Your task to perform on an android device: Go to CNN.com Image 0: 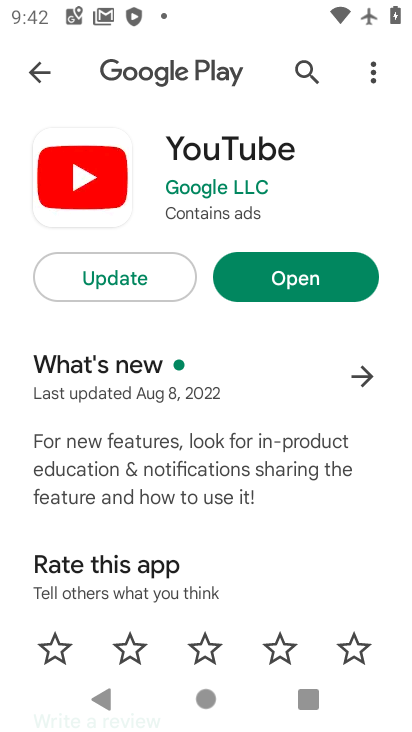
Step 0: press home button
Your task to perform on an android device: Go to CNN.com Image 1: 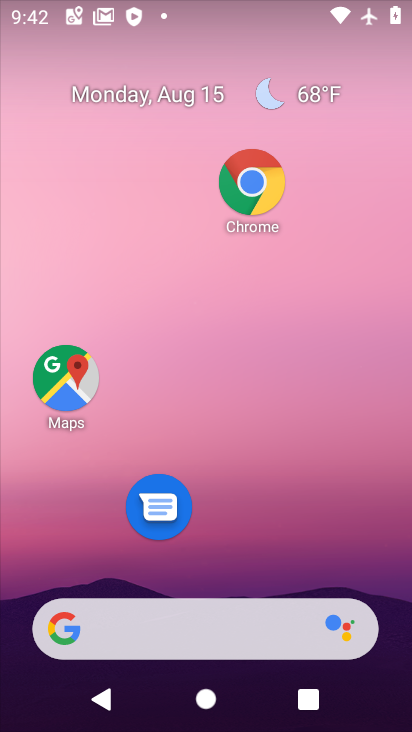
Step 1: drag from (243, 584) to (273, 160)
Your task to perform on an android device: Go to CNN.com Image 2: 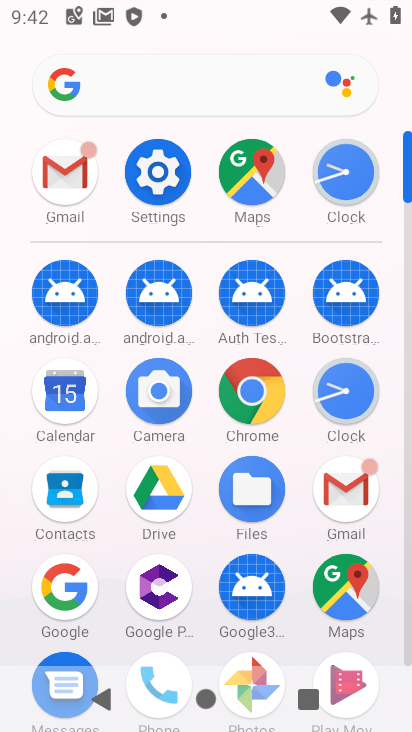
Step 2: click (245, 394)
Your task to perform on an android device: Go to CNN.com Image 3: 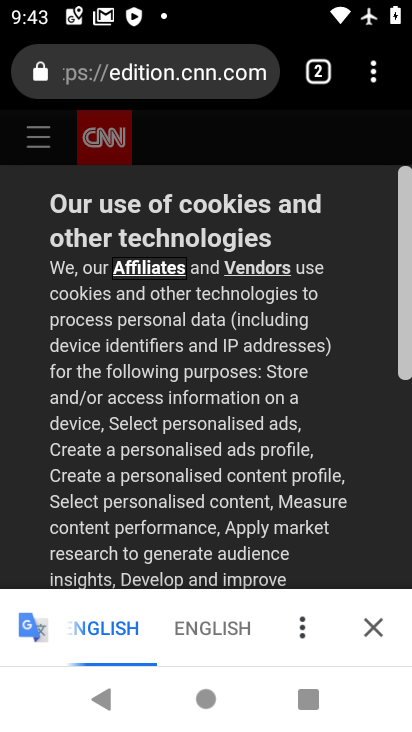
Step 3: task complete